Your task to perform on an android device: empty trash in the gmail app Image 0: 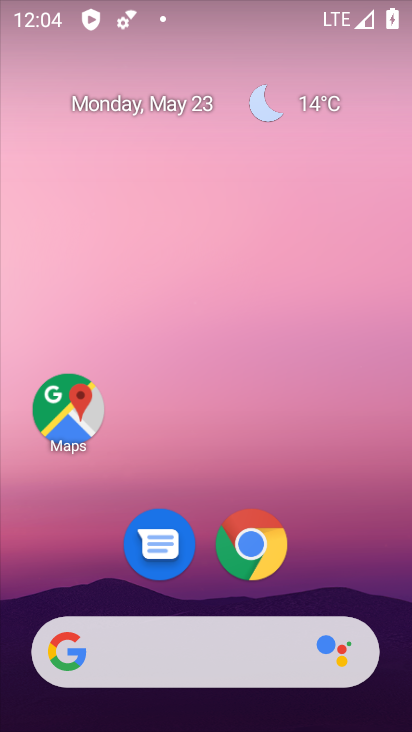
Step 0: drag from (307, 576) to (298, 57)
Your task to perform on an android device: empty trash in the gmail app Image 1: 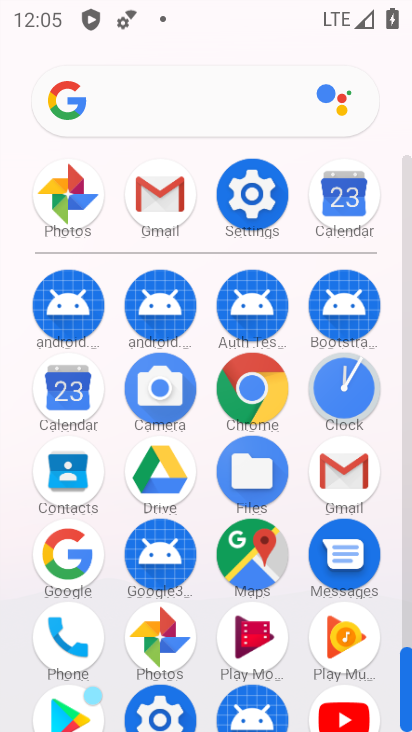
Step 1: click (155, 189)
Your task to perform on an android device: empty trash in the gmail app Image 2: 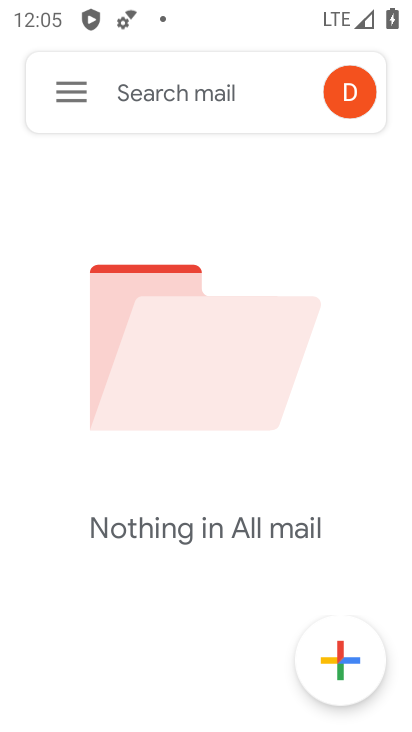
Step 2: click (65, 94)
Your task to perform on an android device: empty trash in the gmail app Image 3: 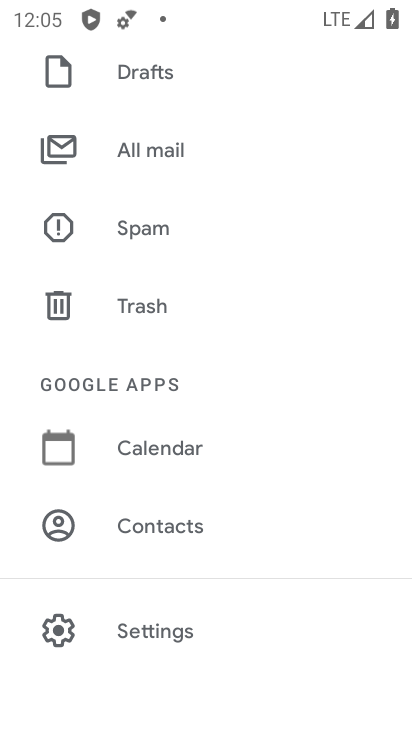
Step 3: click (152, 309)
Your task to perform on an android device: empty trash in the gmail app Image 4: 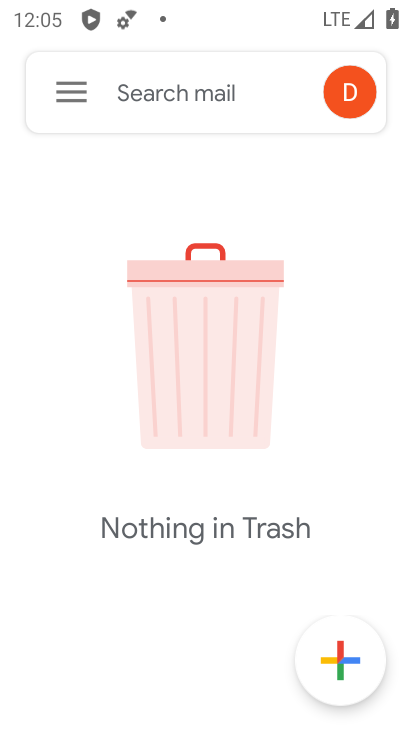
Step 4: task complete